Your task to perform on an android device: open app "AliExpress" (install if not already installed), go to login, and select forgot password Image 0: 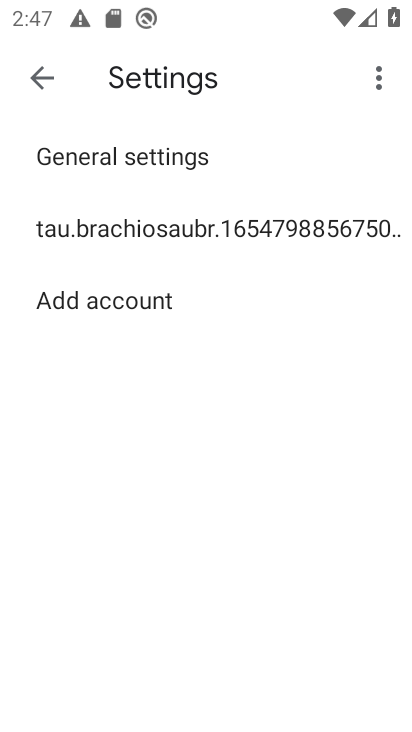
Step 0: press home button
Your task to perform on an android device: open app "AliExpress" (install if not already installed), go to login, and select forgot password Image 1: 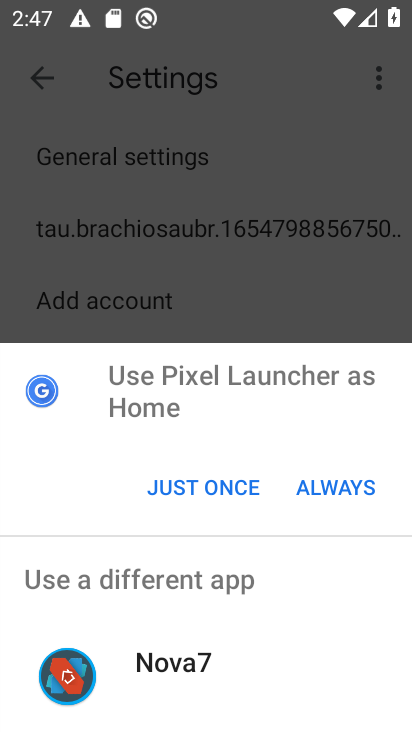
Step 1: click (239, 474)
Your task to perform on an android device: open app "AliExpress" (install if not already installed), go to login, and select forgot password Image 2: 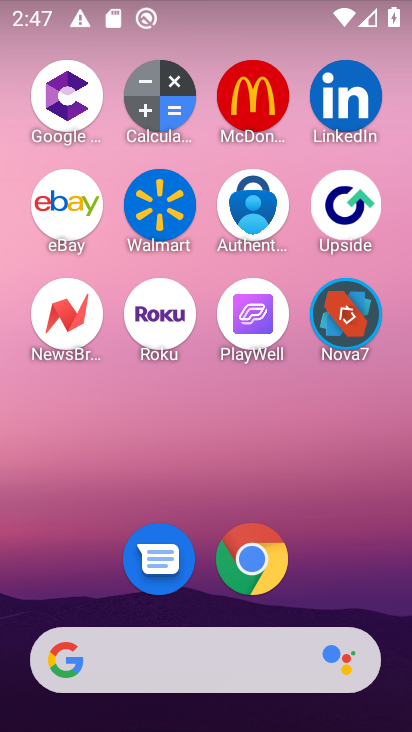
Step 2: drag from (186, 646) to (148, 244)
Your task to perform on an android device: open app "AliExpress" (install if not already installed), go to login, and select forgot password Image 3: 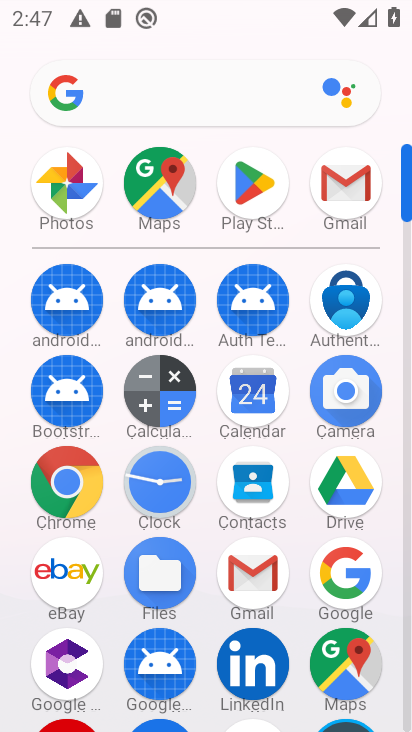
Step 3: click (240, 183)
Your task to perform on an android device: open app "AliExpress" (install if not already installed), go to login, and select forgot password Image 4: 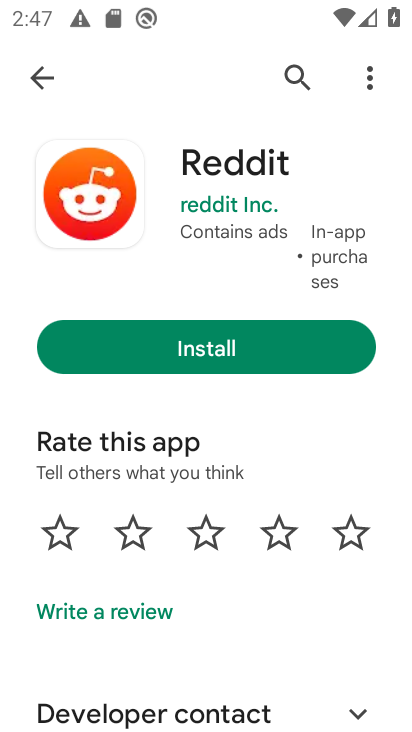
Step 4: click (36, 81)
Your task to perform on an android device: open app "AliExpress" (install if not already installed), go to login, and select forgot password Image 5: 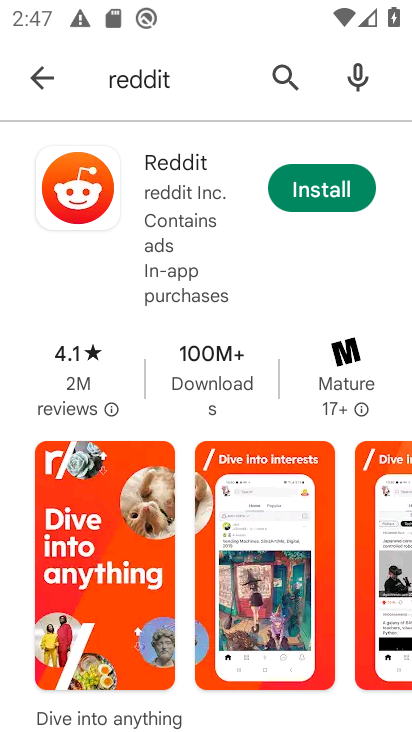
Step 5: click (273, 78)
Your task to perform on an android device: open app "AliExpress" (install if not already installed), go to login, and select forgot password Image 6: 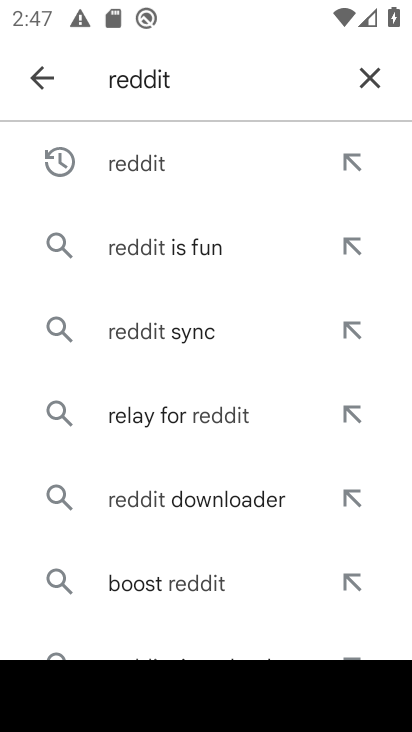
Step 6: click (368, 80)
Your task to perform on an android device: open app "AliExpress" (install if not already installed), go to login, and select forgot password Image 7: 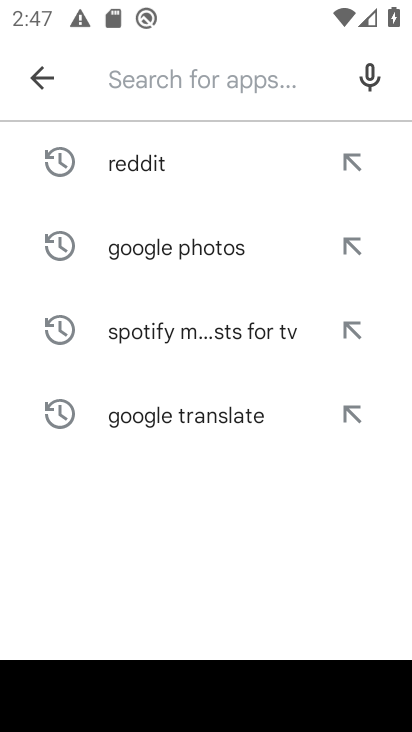
Step 7: type "AliExpress"
Your task to perform on an android device: open app "AliExpress" (install if not already installed), go to login, and select forgot password Image 8: 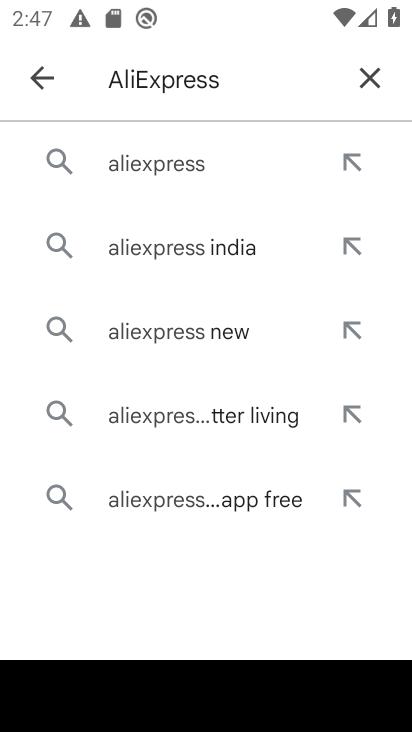
Step 8: click (182, 165)
Your task to perform on an android device: open app "AliExpress" (install if not already installed), go to login, and select forgot password Image 9: 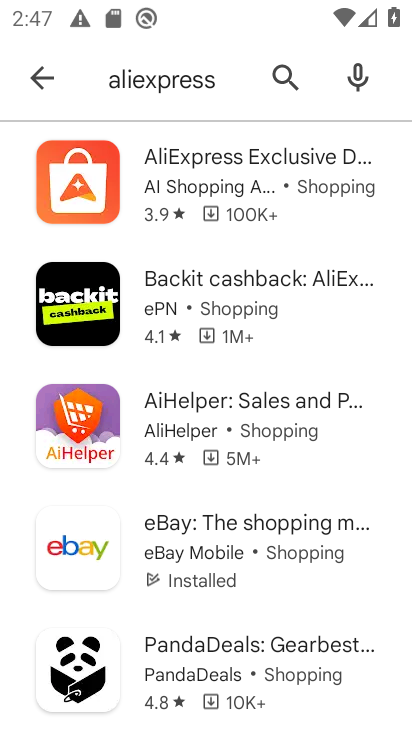
Step 9: click (206, 168)
Your task to perform on an android device: open app "AliExpress" (install if not already installed), go to login, and select forgot password Image 10: 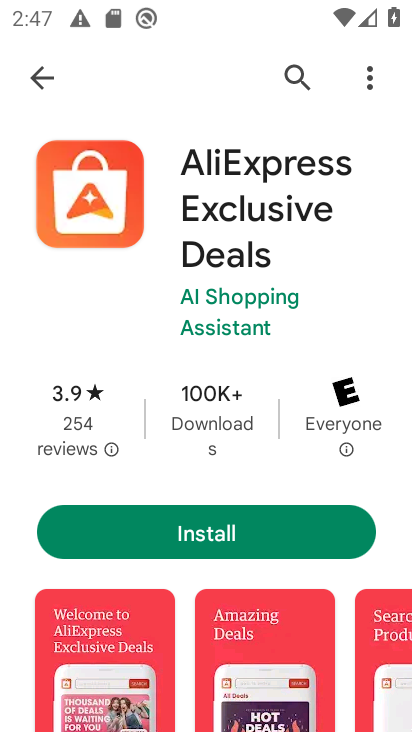
Step 10: click (224, 549)
Your task to perform on an android device: open app "AliExpress" (install if not already installed), go to login, and select forgot password Image 11: 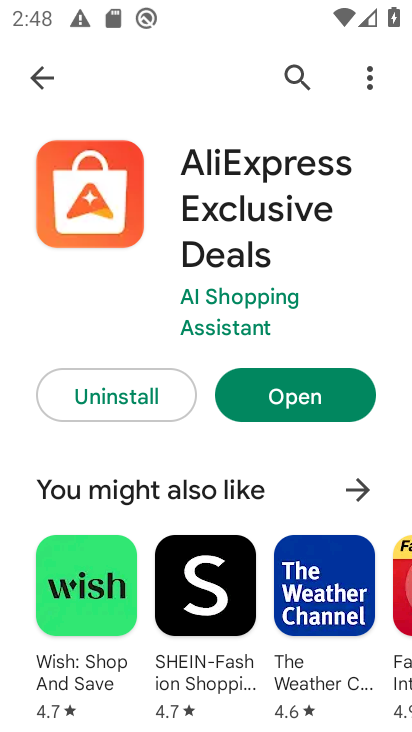
Step 11: click (268, 409)
Your task to perform on an android device: open app "AliExpress" (install if not already installed), go to login, and select forgot password Image 12: 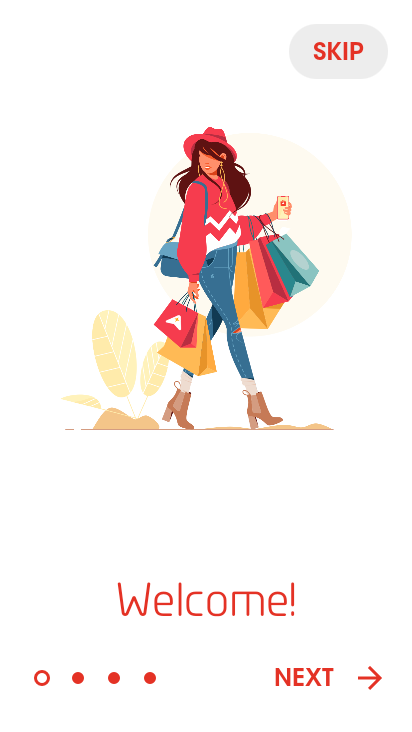
Step 12: click (297, 685)
Your task to perform on an android device: open app "AliExpress" (install if not already installed), go to login, and select forgot password Image 13: 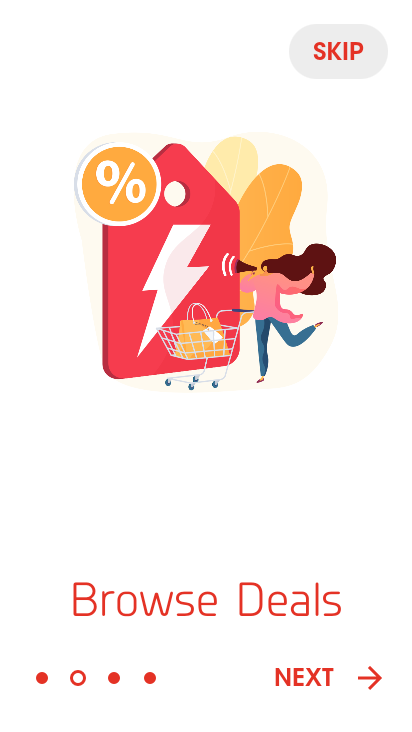
Step 13: click (297, 685)
Your task to perform on an android device: open app "AliExpress" (install if not already installed), go to login, and select forgot password Image 14: 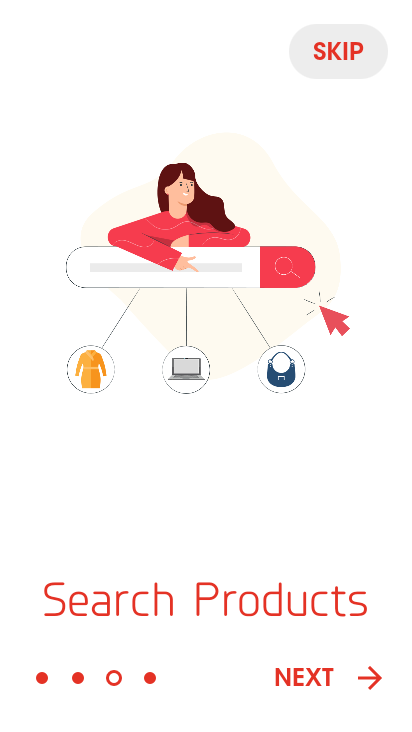
Step 14: task complete